Your task to perform on an android device: Open sound settings Image 0: 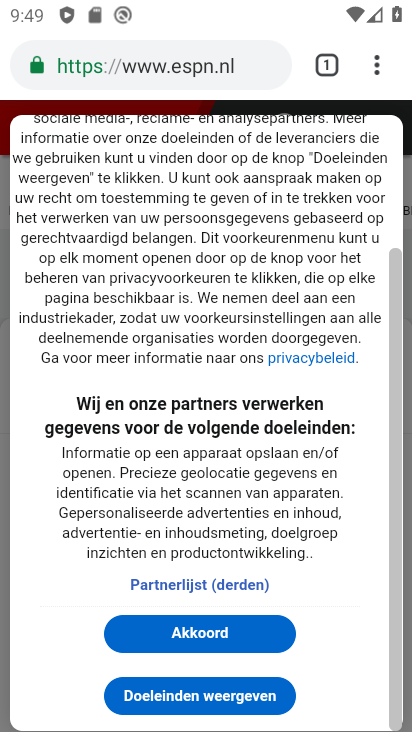
Step 0: press home button
Your task to perform on an android device: Open sound settings Image 1: 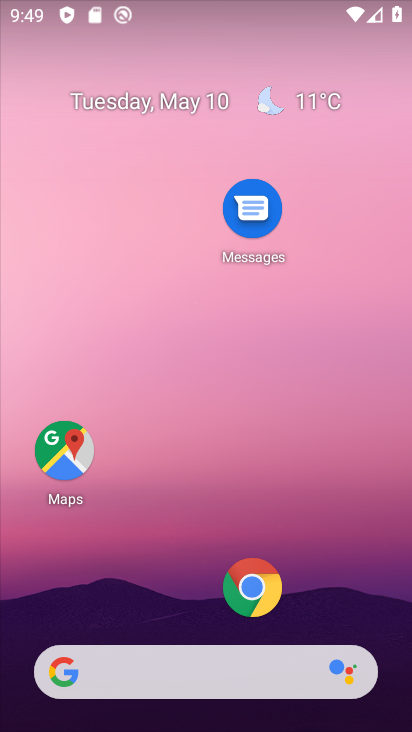
Step 1: drag from (155, 559) to (251, 1)
Your task to perform on an android device: Open sound settings Image 2: 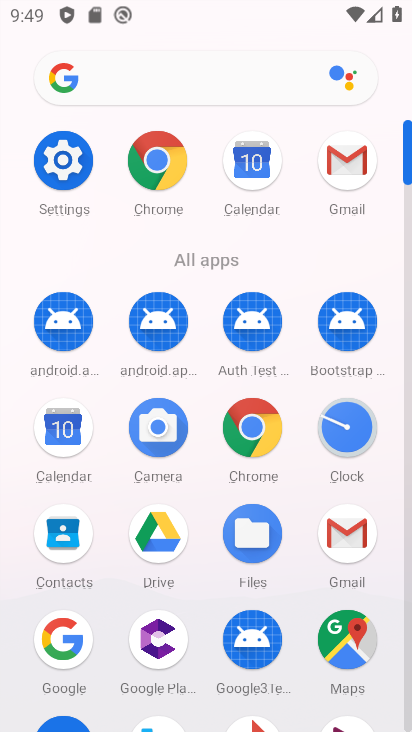
Step 2: click (76, 165)
Your task to perform on an android device: Open sound settings Image 3: 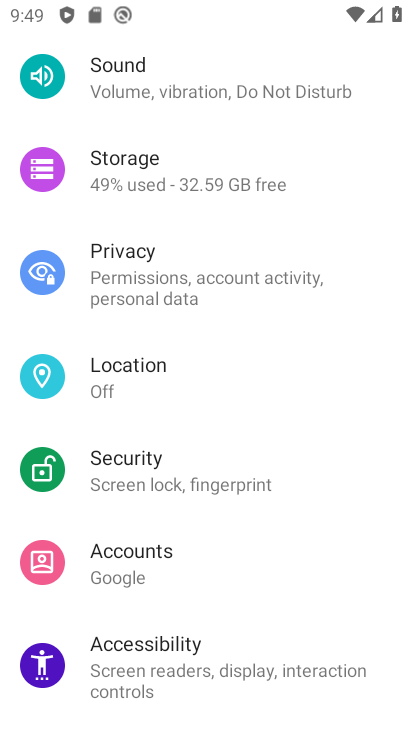
Step 3: click (173, 92)
Your task to perform on an android device: Open sound settings Image 4: 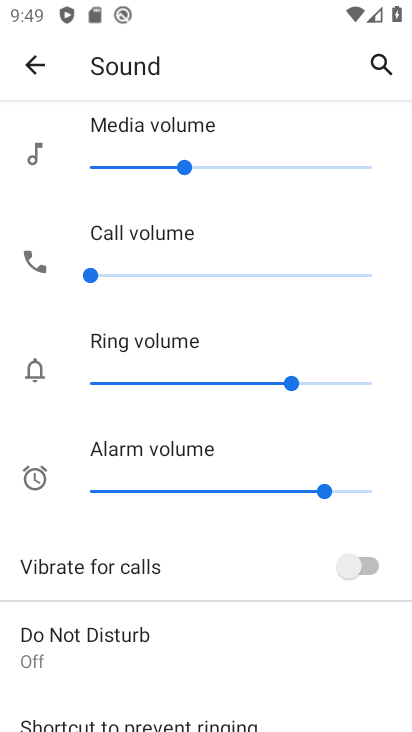
Step 4: task complete